Your task to perform on an android device: Open display settings Image 0: 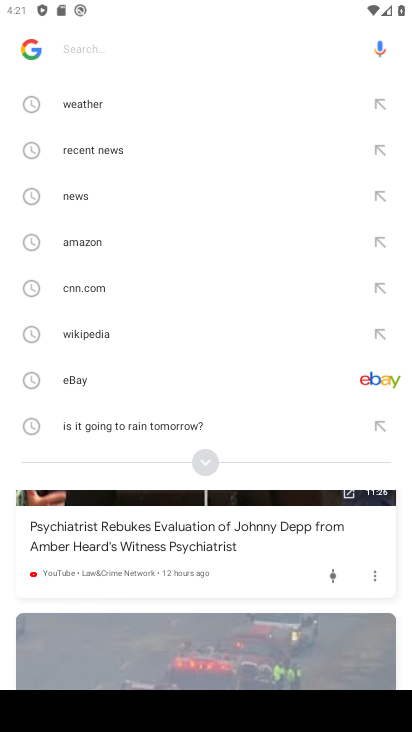
Step 0: press home button
Your task to perform on an android device: Open display settings Image 1: 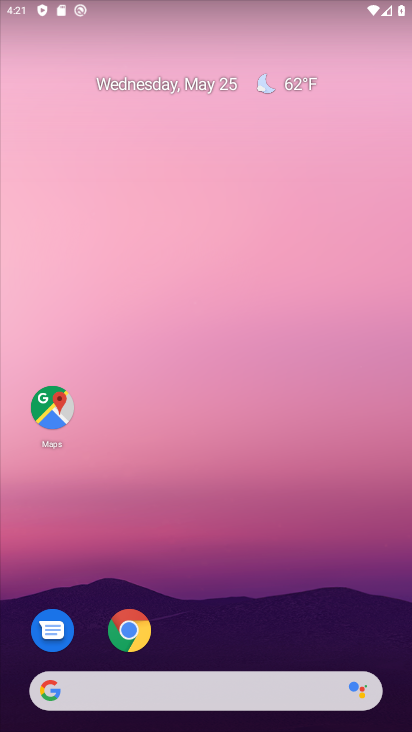
Step 1: drag from (245, 623) to (312, 38)
Your task to perform on an android device: Open display settings Image 2: 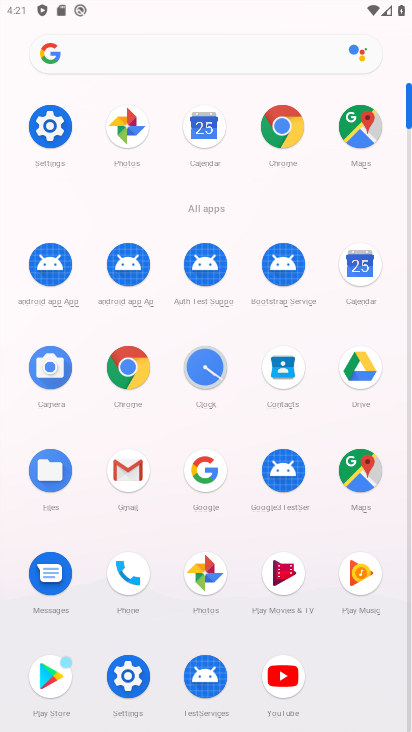
Step 2: click (43, 116)
Your task to perform on an android device: Open display settings Image 3: 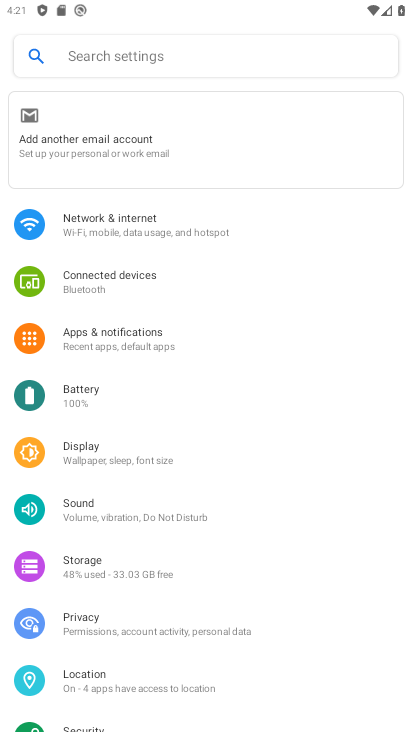
Step 3: click (107, 455)
Your task to perform on an android device: Open display settings Image 4: 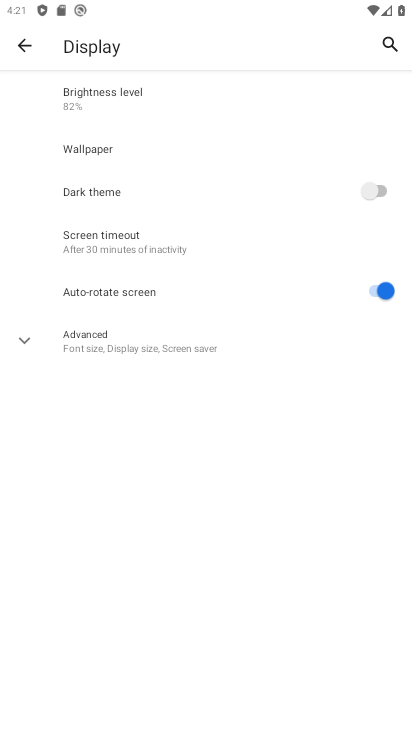
Step 4: task complete